Your task to perform on an android device: Open the calendar and show me this week's events? Image 0: 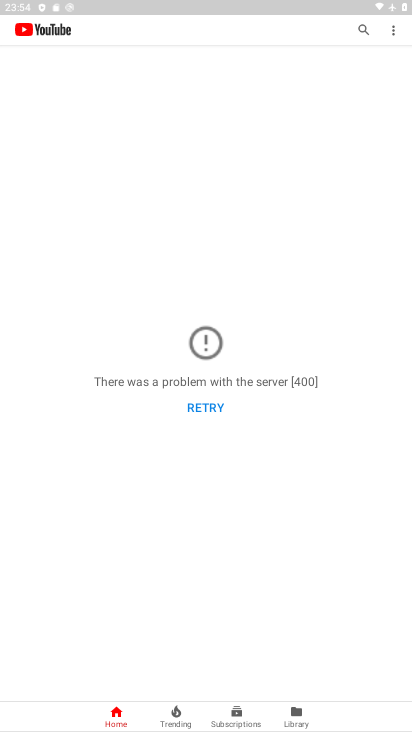
Step 0: press back button
Your task to perform on an android device: Open the calendar and show me this week's events? Image 1: 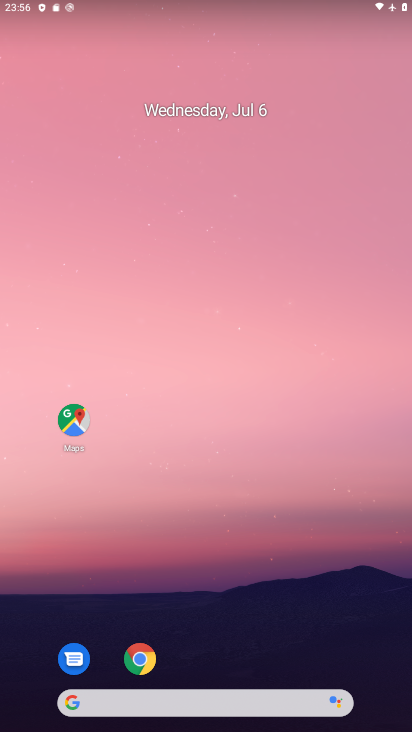
Step 1: drag from (253, 713) to (125, 184)
Your task to perform on an android device: Open the calendar and show me this week's events? Image 2: 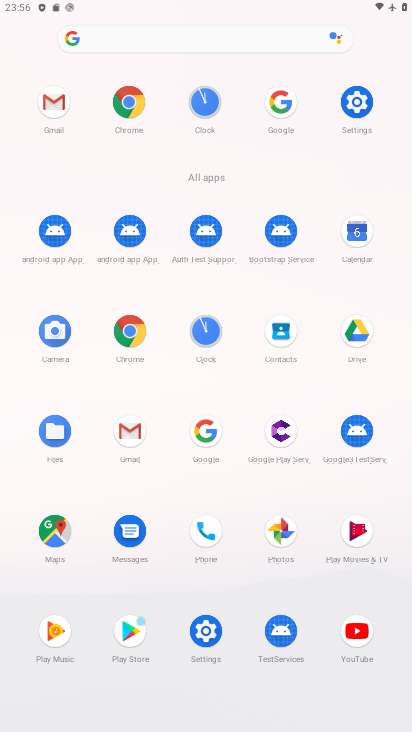
Step 2: click (347, 244)
Your task to perform on an android device: Open the calendar and show me this week's events? Image 3: 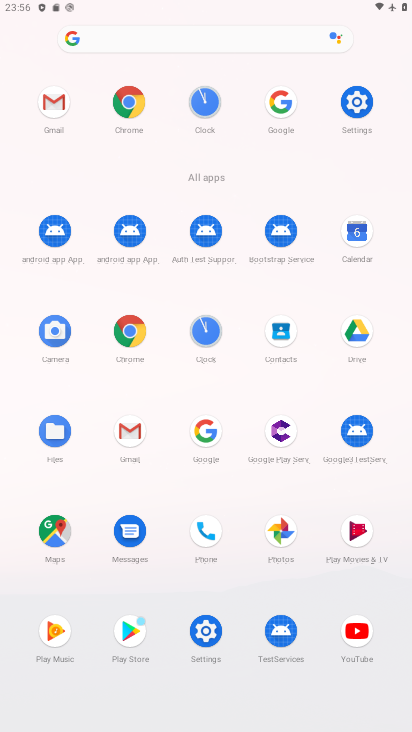
Step 3: click (353, 235)
Your task to perform on an android device: Open the calendar and show me this week's events? Image 4: 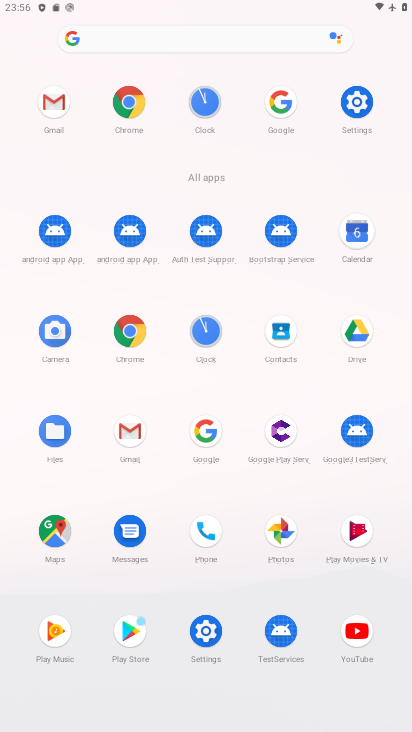
Step 4: click (355, 235)
Your task to perform on an android device: Open the calendar and show me this week's events? Image 5: 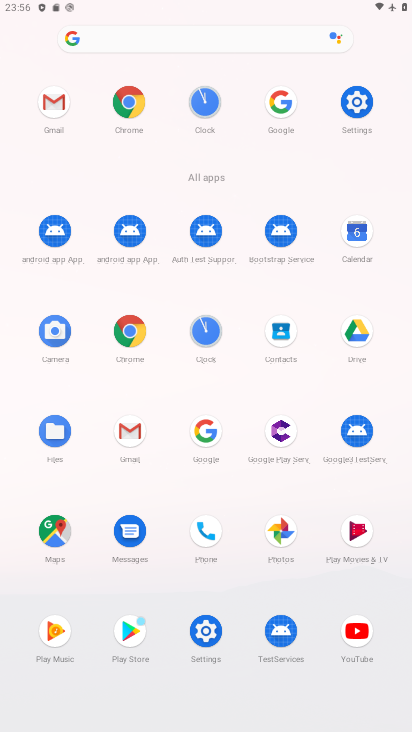
Step 5: click (355, 235)
Your task to perform on an android device: Open the calendar and show me this week's events? Image 6: 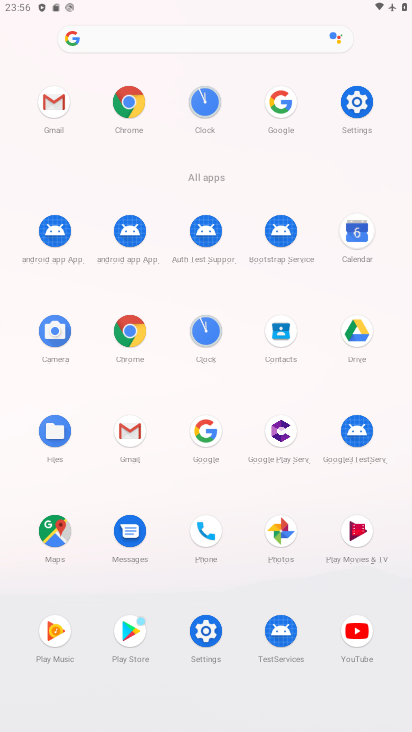
Step 6: click (356, 235)
Your task to perform on an android device: Open the calendar and show me this week's events? Image 7: 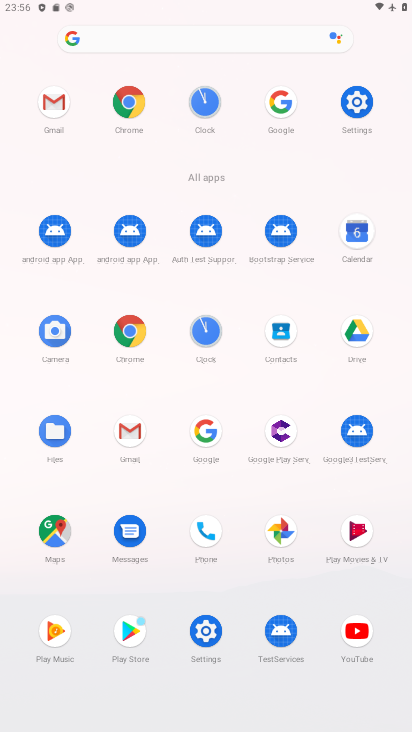
Step 7: click (357, 235)
Your task to perform on an android device: Open the calendar and show me this week's events? Image 8: 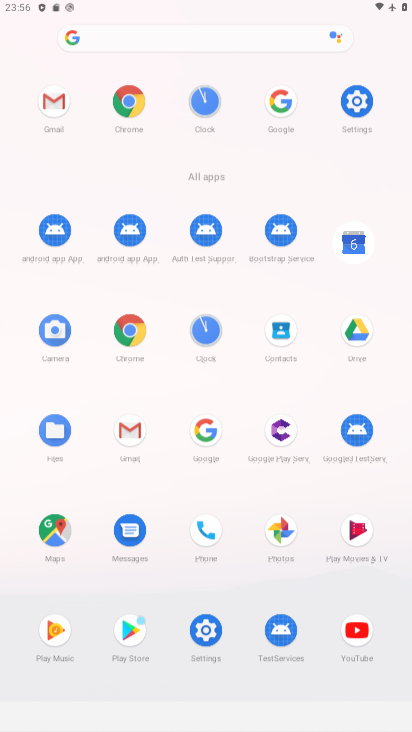
Step 8: click (357, 235)
Your task to perform on an android device: Open the calendar and show me this week's events? Image 9: 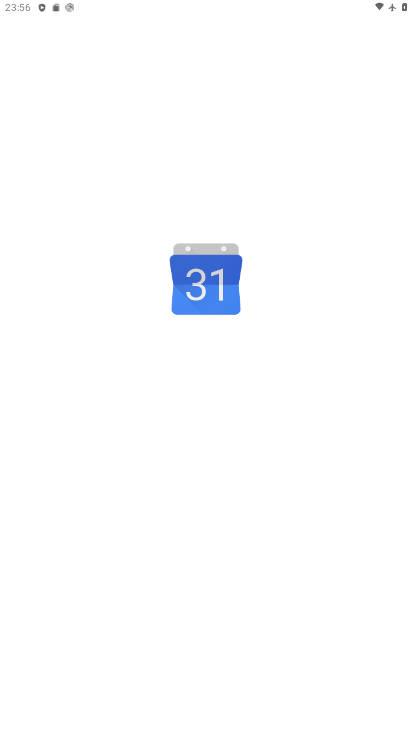
Step 9: click (357, 235)
Your task to perform on an android device: Open the calendar and show me this week's events? Image 10: 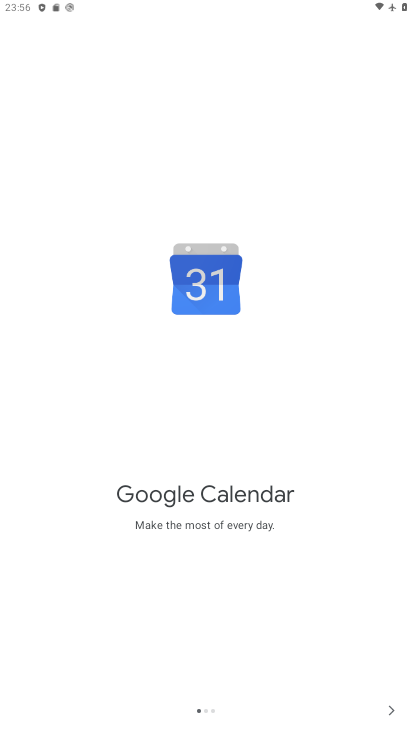
Step 10: click (393, 711)
Your task to perform on an android device: Open the calendar and show me this week's events? Image 11: 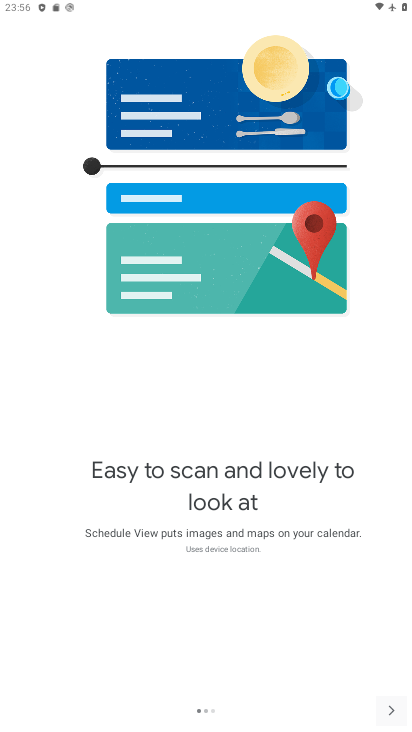
Step 11: click (393, 711)
Your task to perform on an android device: Open the calendar and show me this week's events? Image 12: 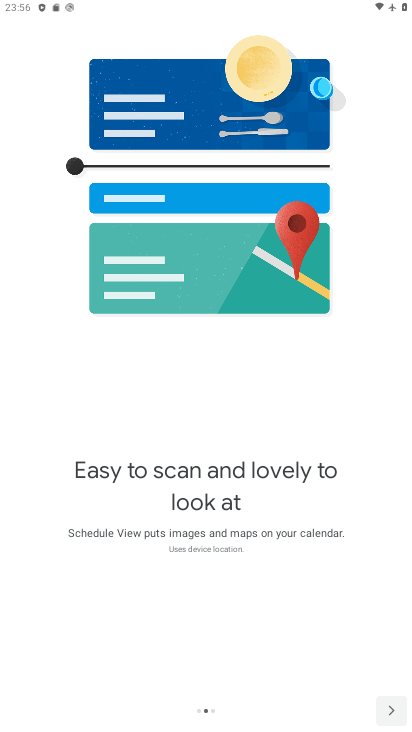
Step 12: click (393, 711)
Your task to perform on an android device: Open the calendar and show me this week's events? Image 13: 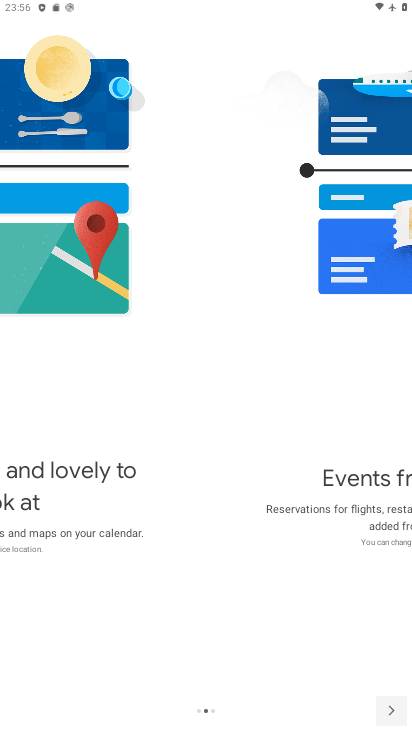
Step 13: click (393, 712)
Your task to perform on an android device: Open the calendar and show me this week's events? Image 14: 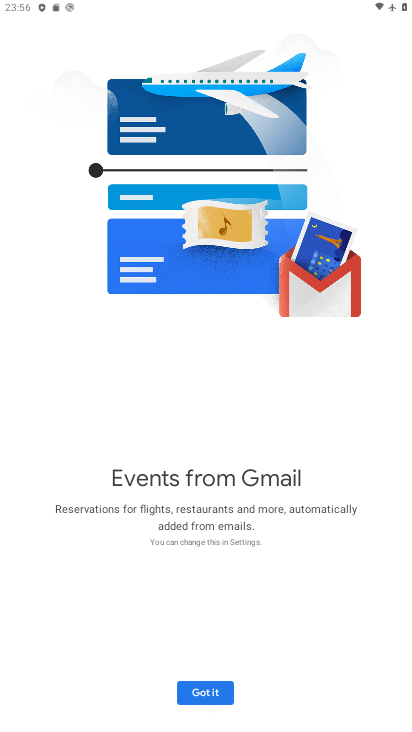
Step 14: click (392, 713)
Your task to perform on an android device: Open the calendar and show me this week's events? Image 15: 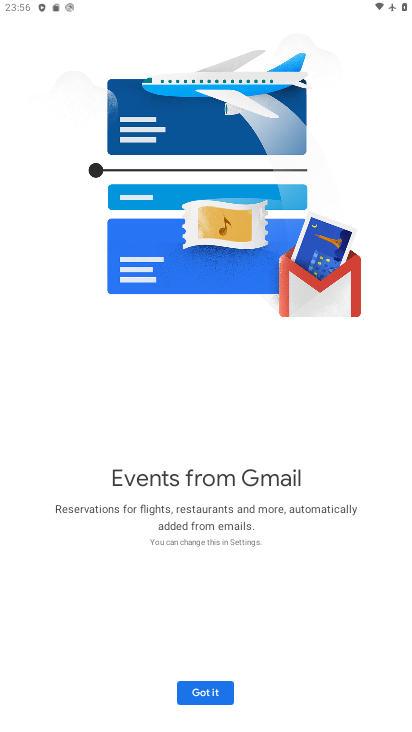
Step 15: click (392, 713)
Your task to perform on an android device: Open the calendar and show me this week's events? Image 16: 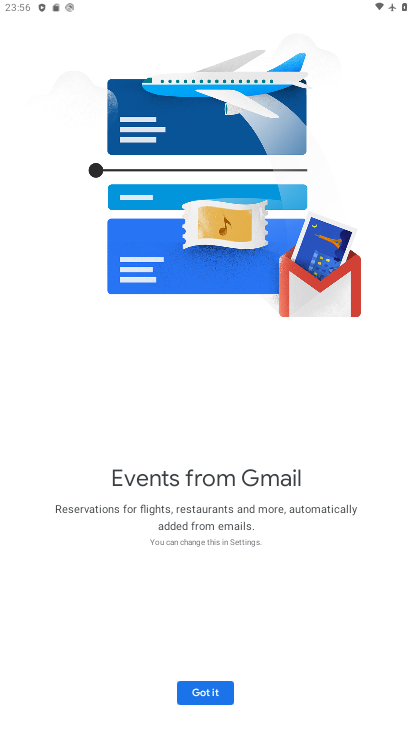
Step 16: click (391, 715)
Your task to perform on an android device: Open the calendar and show me this week's events? Image 17: 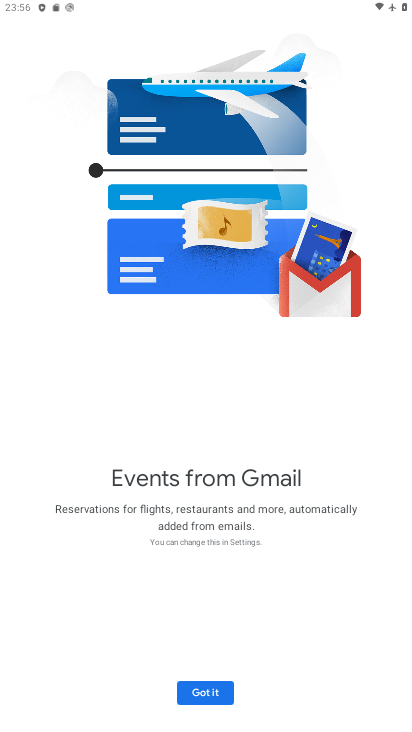
Step 17: click (188, 686)
Your task to perform on an android device: Open the calendar and show me this week's events? Image 18: 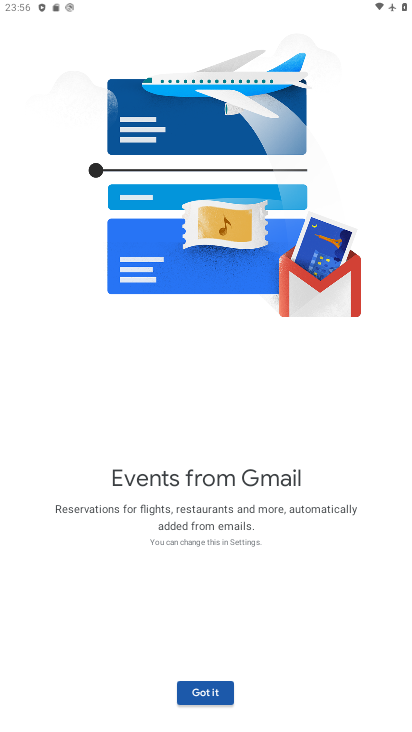
Step 18: click (196, 683)
Your task to perform on an android device: Open the calendar and show me this week's events? Image 19: 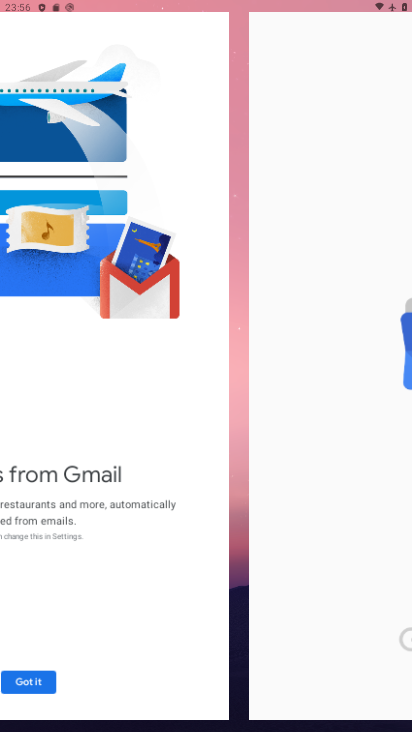
Step 19: click (200, 686)
Your task to perform on an android device: Open the calendar and show me this week's events? Image 20: 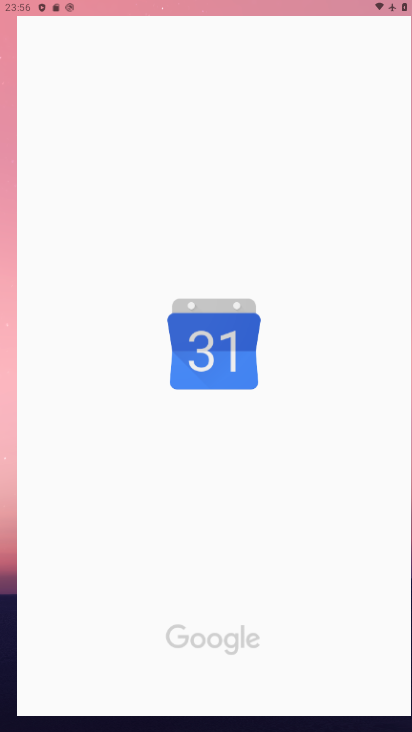
Step 20: click (202, 686)
Your task to perform on an android device: Open the calendar and show me this week's events? Image 21: 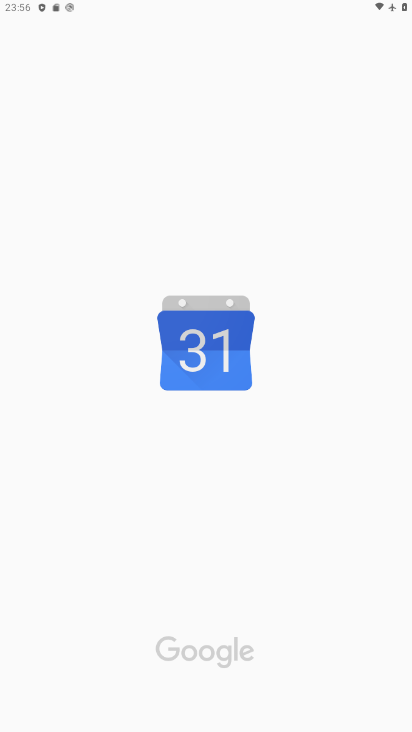
Step 21: click (204, 686)
Your task to perform on an android device: Open the calendar and show me this week's events? Image 22: 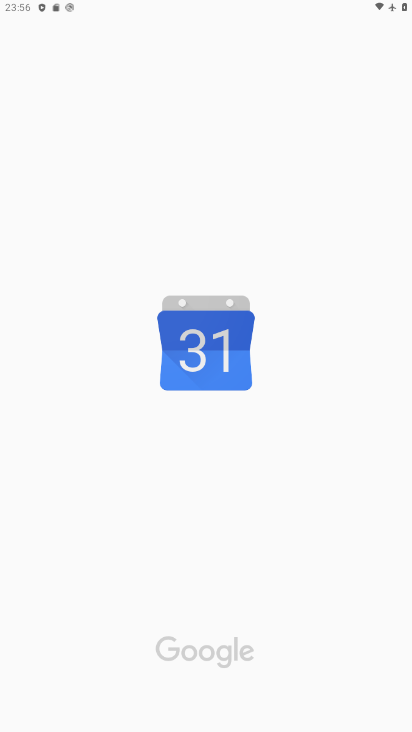
Step 22: click (204, 687)
Your task to perform on an android device: Open the calendar and show me this week's events? Image 23: 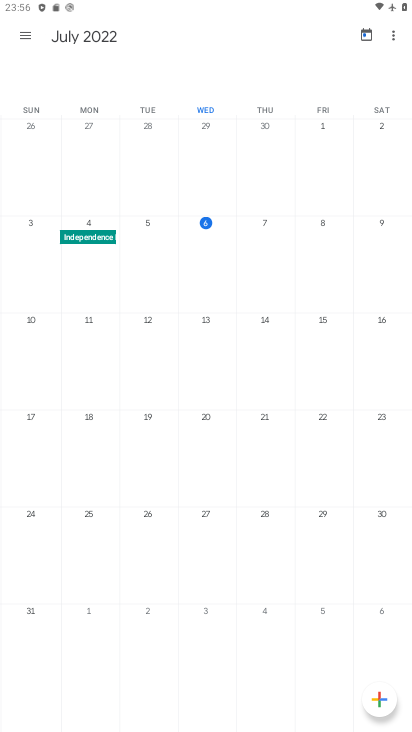
Step 23: click (374, 222)
Your task to perform on an android device: Open the calendar and show me this week's events? Image 24: 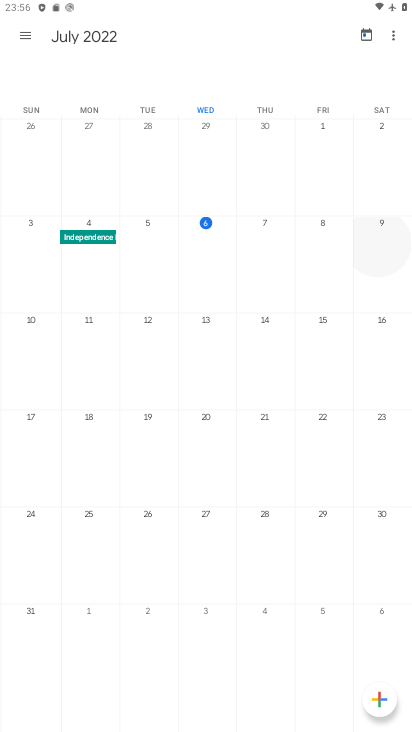
Step 24: click (375, 221)
Your task to perform on an android device: Open the calendar and show me this week's events? Image 25: 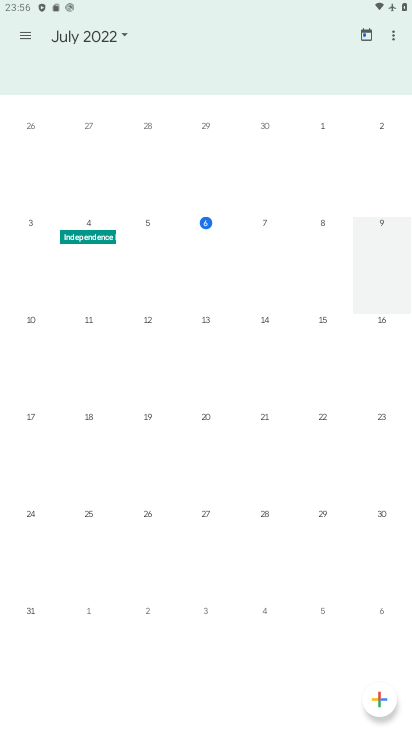
Step 25: click (377, 220)
Your task to perform on an android device: Open the calendar and show me this week's events? Image 26: 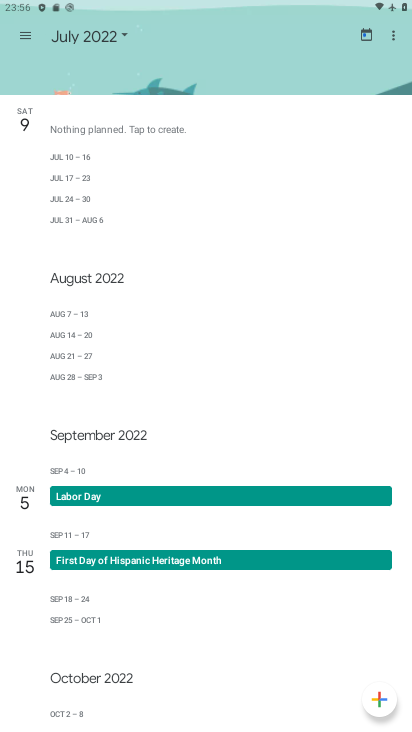
Step 26: click (381, 219)
Your task to perform on an android device: Open the calendar and show me this week's events? Image 27: 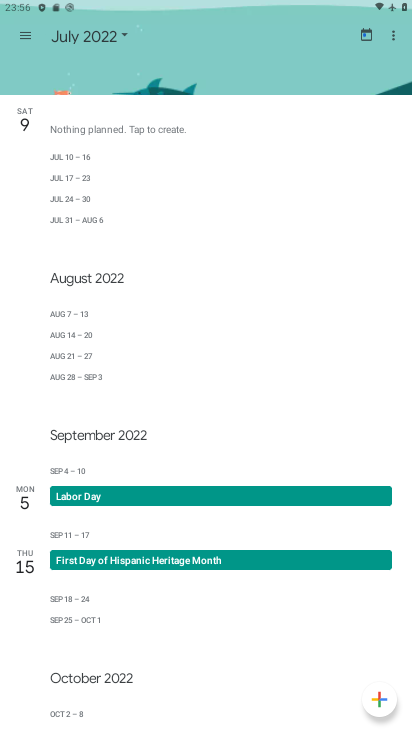
Step 27: task complete